Your task to perform on an android device: toggle wifi Image 0: 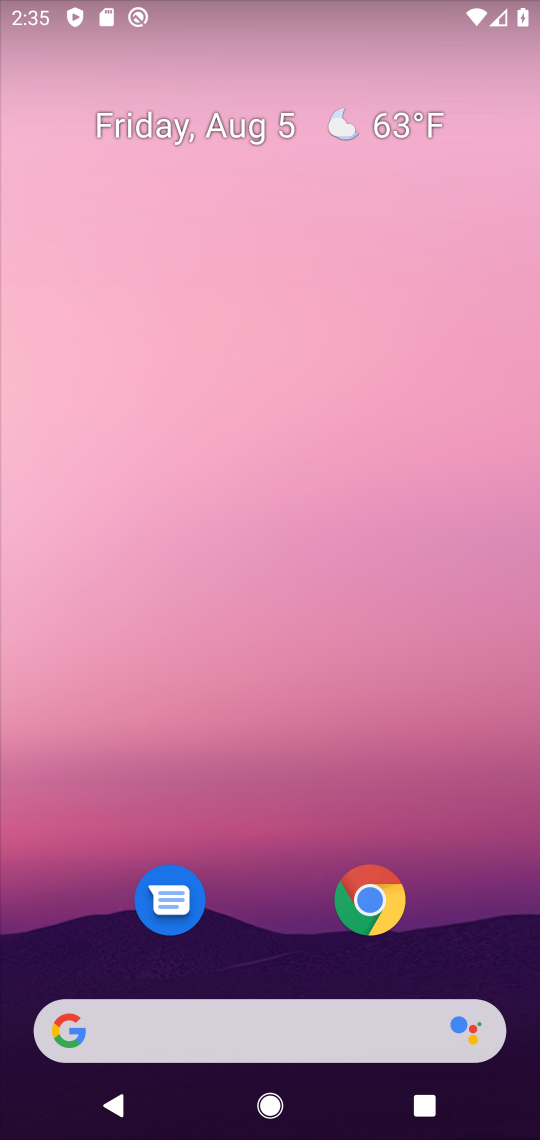
Step 0: task complete